Your task to perform on an android device: turn smart compose on in the gmail app Image 0: 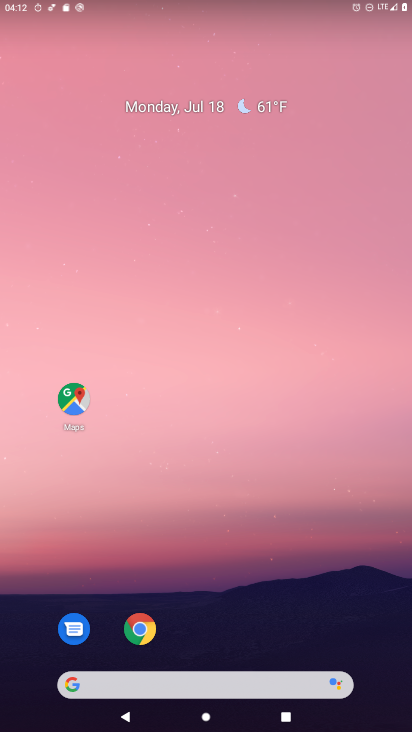
Step 0: drag from (187, 688) to (236, 172)
Your task to perform on an android device: turn smart compose on in the gmail app Image 1: 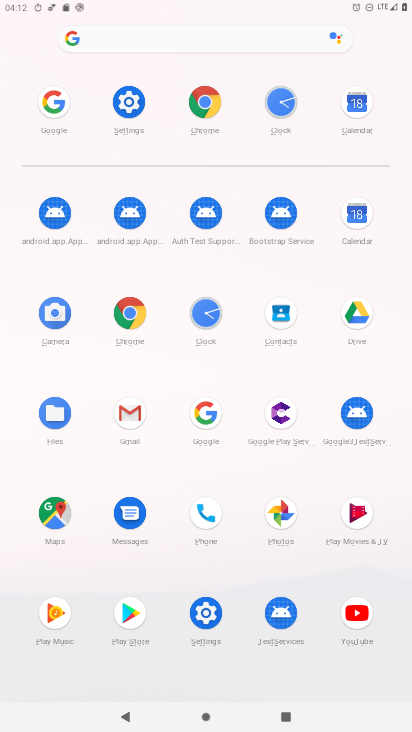
Step 1: click (129, 410)
Your task to perform on an android device: turn smart compose on in the gmail app Image 2: 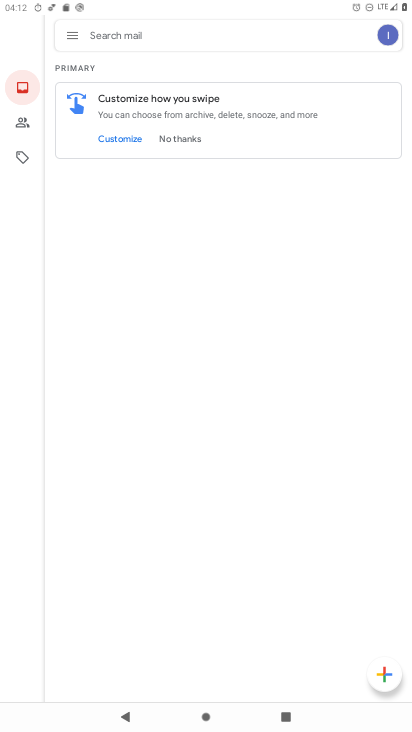
Step 2: click (70, 39)
Your task to perform on an android device: turn smart compose on in the gmail app Image 3: 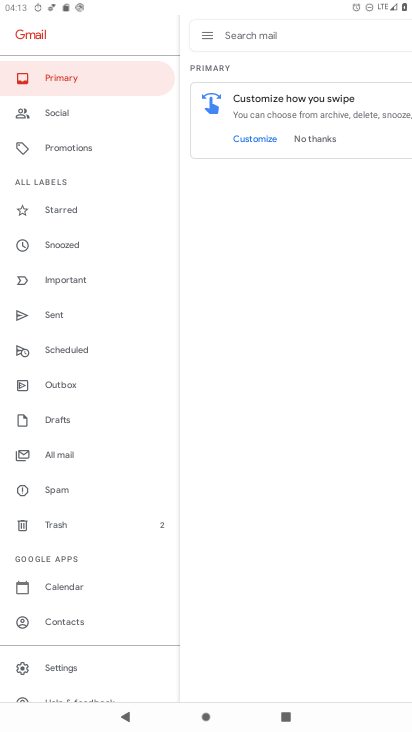
Step 3: click (64, 671)
Your task to perform on an android device: turn smart compose on in the gmail app Image 4: 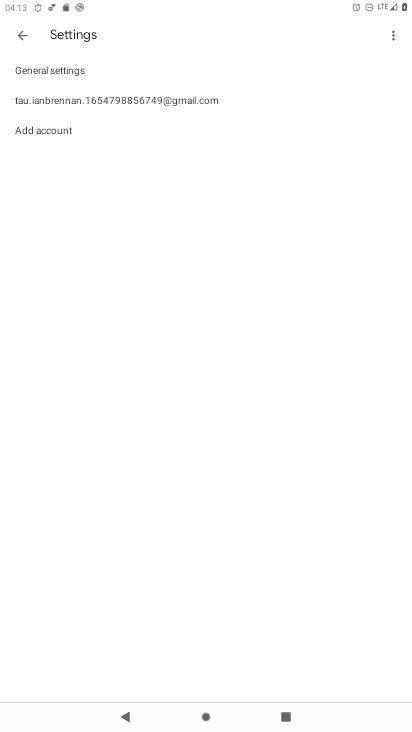
Step 4: click (117, 95)
Your task to perform on an android device: turn smart compose on in the gmail app Image 5: 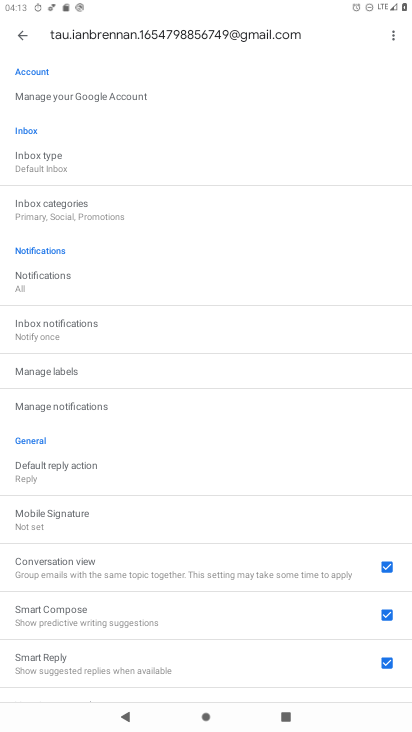
Step 5: task complete